Your task to perform on an android device: Do I have any events this weekend? Image 0: 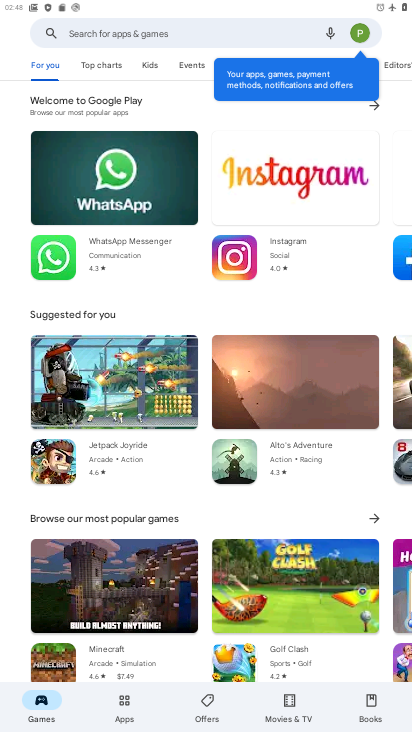
Step 0: press home button
Your task to perform on an android device: Do I have any events this weekend? Image 1: 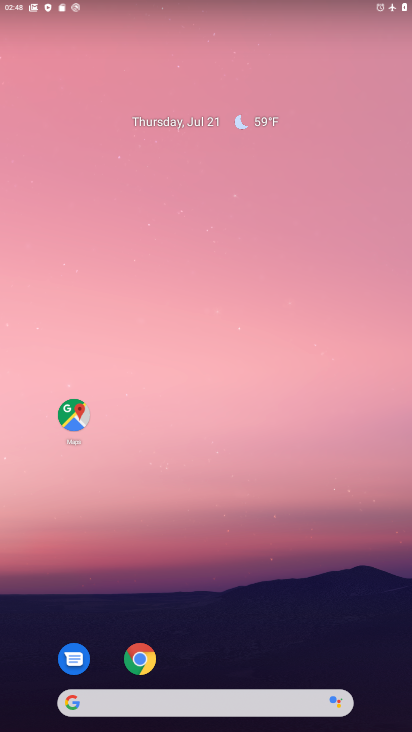
Step 1: drag from (346, 629) to (240, 83)
Your task to perform on an android device: Do I have any events this weekend? Image 2: 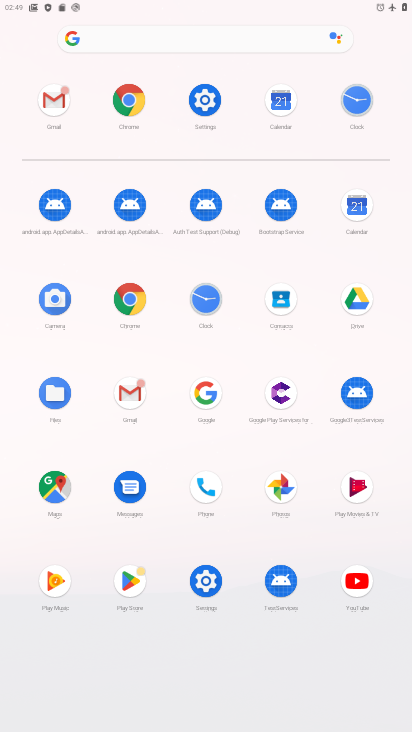
Step 2: click (361, 203)
Your task to perform on an android device: Do I have any events this weekend? Image 3: 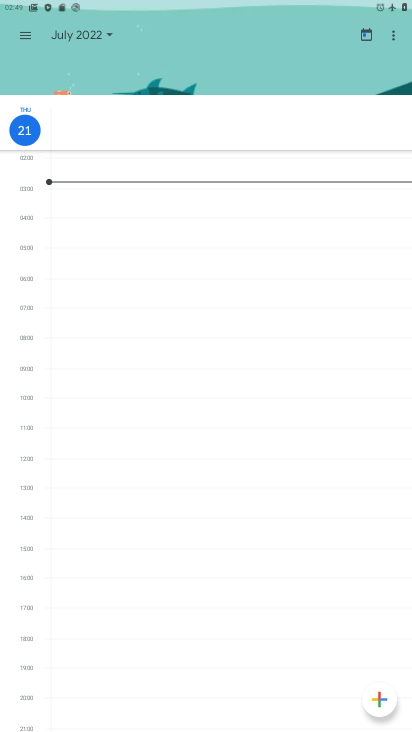
Step 3: click (25, 35)
Your task to perform on an android device: Do I have any events this weekend? Image 4: 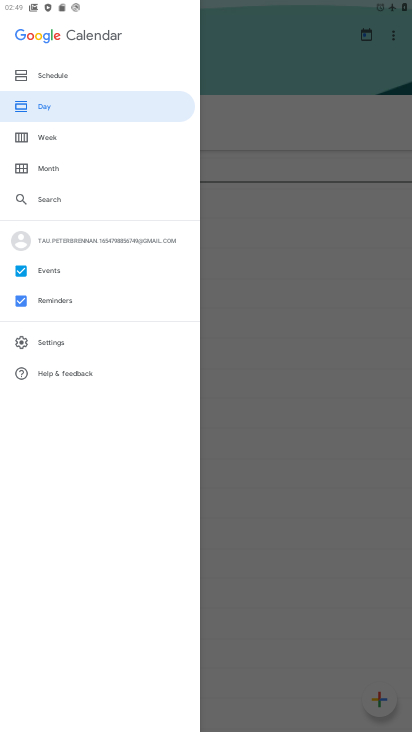
Step 4: click (64, 139)
Your task to perform on an android device: Do I have any events this weekend? Image 5: 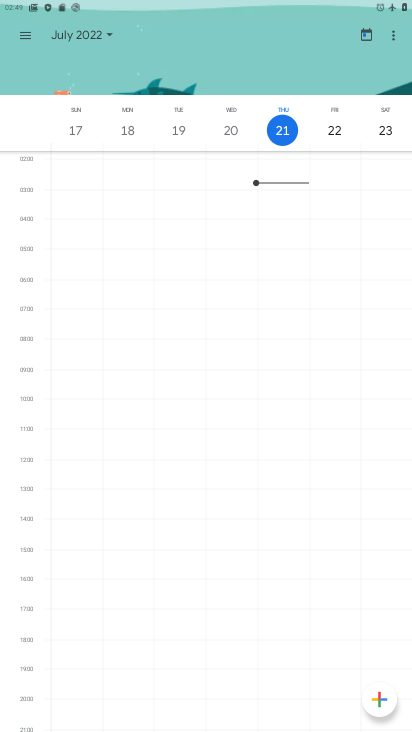
Step 5: click (380, 124)
Your task to perform on an android device: Do I have any events this weekend? Image 6: 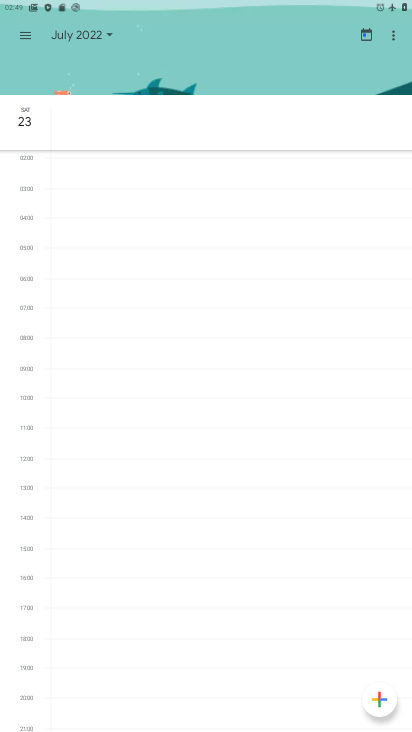
Step 6: task complete